Your task to perform on an android device: check storage Image 0: 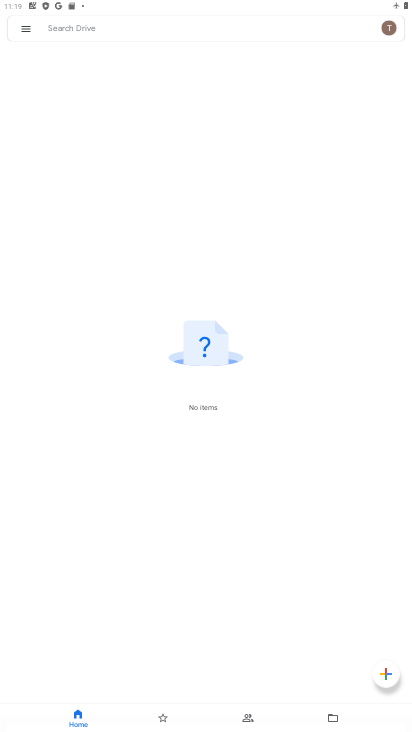
Step 0: press home button
Your task to perform on an android device: check storage Image 1: 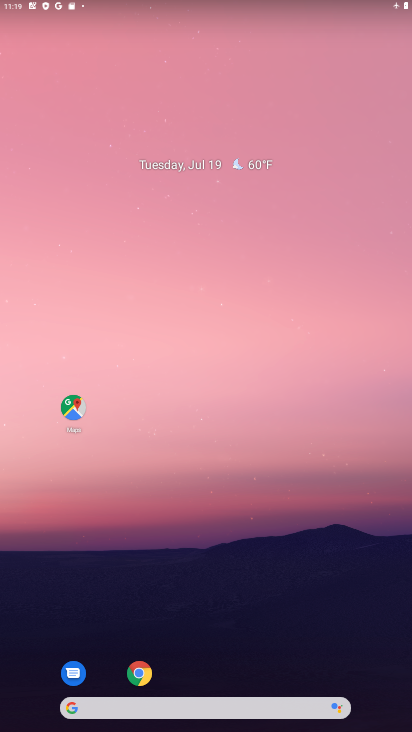
Step 1: drag from (336, 678) to (269, 237)
Your task to perform on an android device: check storage Image 2: 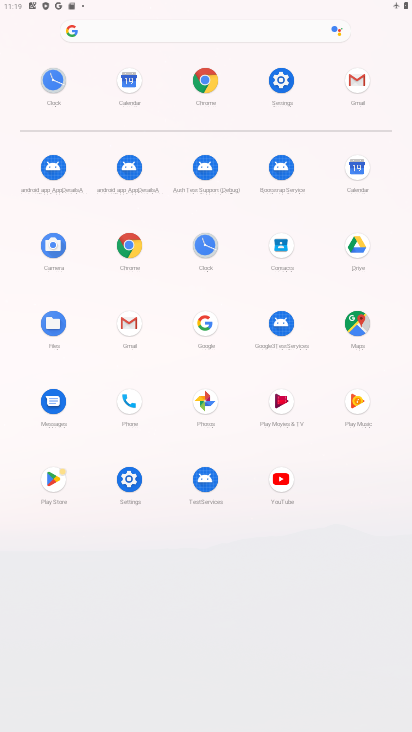
Step 2: click (130, 479)
Your task to perform on an android device: check storage Image 3: 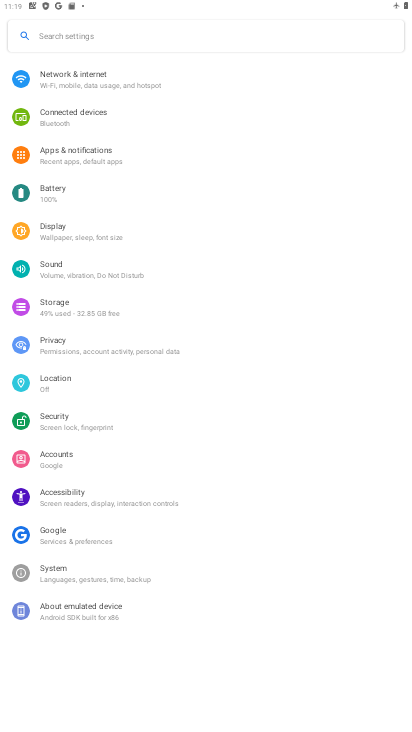
Step 3: click (56, 310)
Your task to perform on an android device: check storage Image 4: 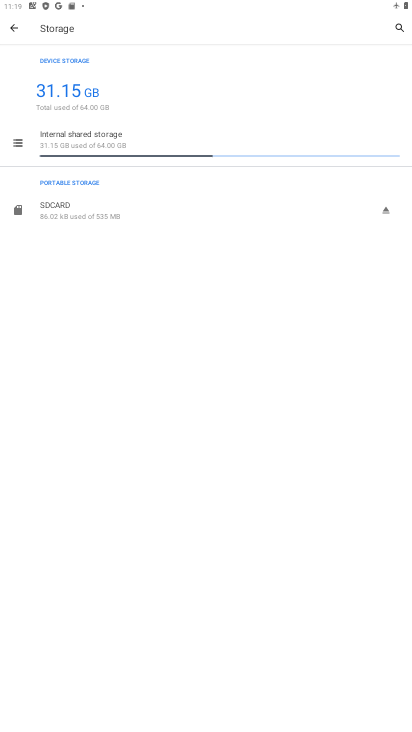
Step 4: task complete